Your task to perform on an android device: refresh tabs in the chrome app Image 0: 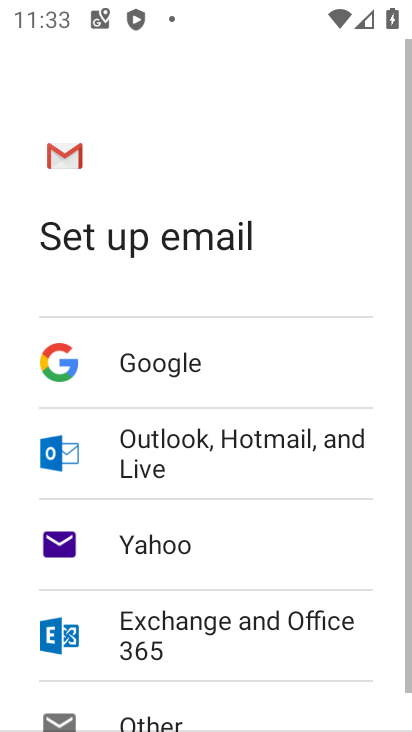
Step 0: press home button
Your task to perform on an android device: refresh tabs in the chrome app Image 1: 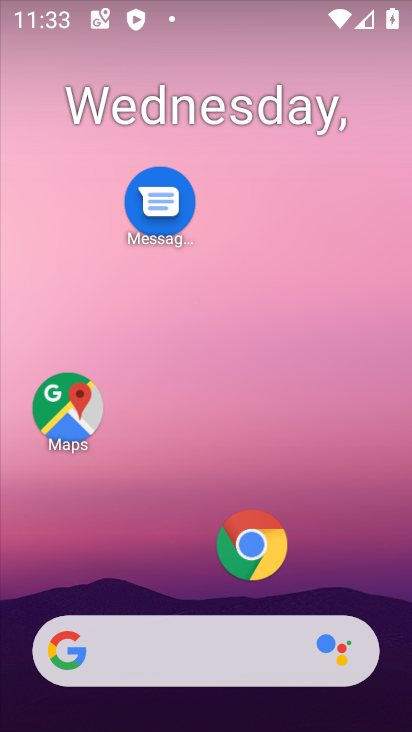
Step 1: click (257, 543)
Your task to perform on an android device: refresh tabs in the chrome app Image 2: 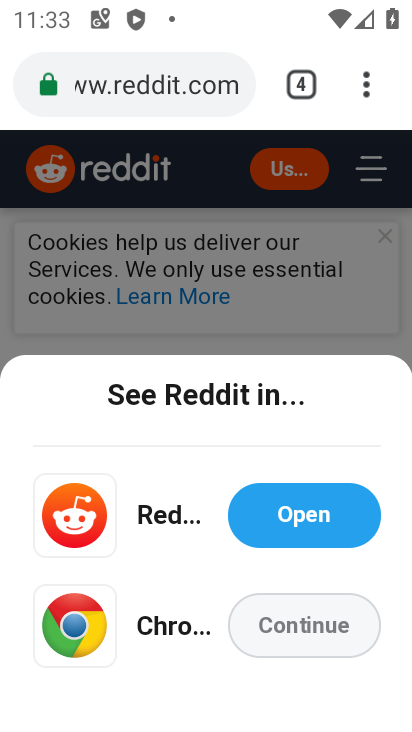
Step 2: click (355, 94)
Your task to perform on an android device: refresh tabs in the chrome app Image 3: 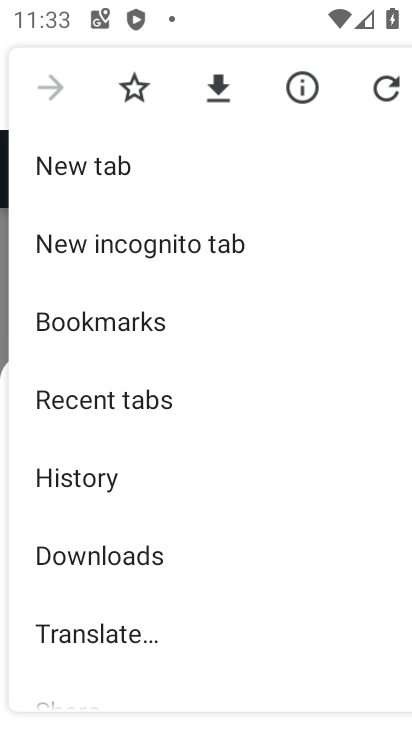
Step 3: click (365, 95)
Your task to perform on an android device: refresh tabs in the chrome app Image 4: 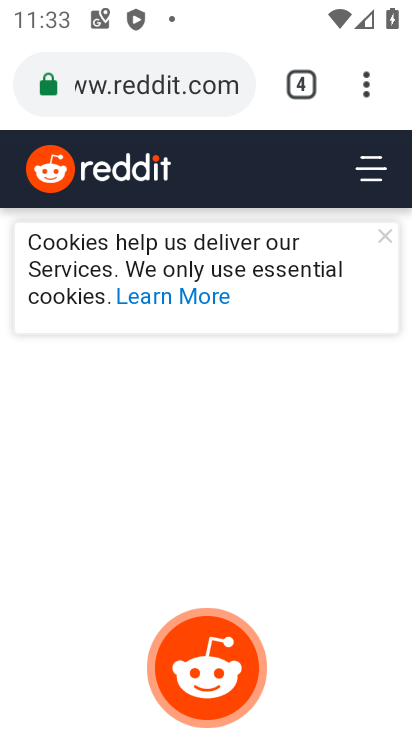
Step 4: task complete